Your task to perform on an android device: change the clock style Image 0: 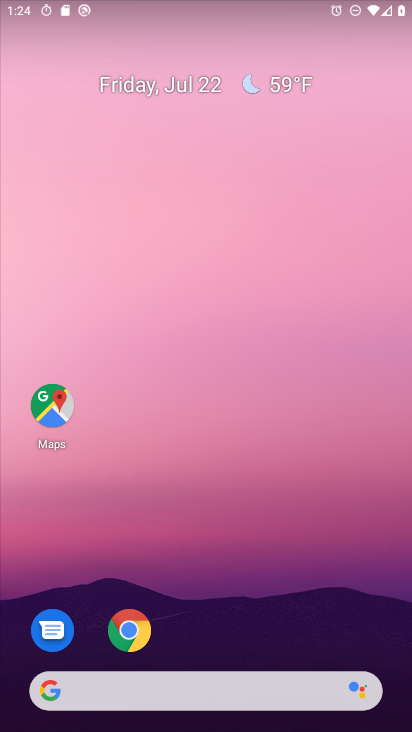
Step 0: press home button
Your task to perform on an android device: change the clock style Image 1: 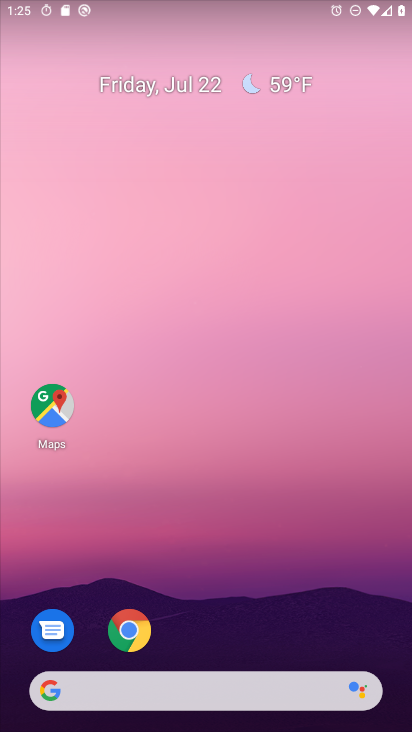
Step 1: drag from (276, 648) to (218, 281)
Your task to perform on an android device: change the clock style Image 2: 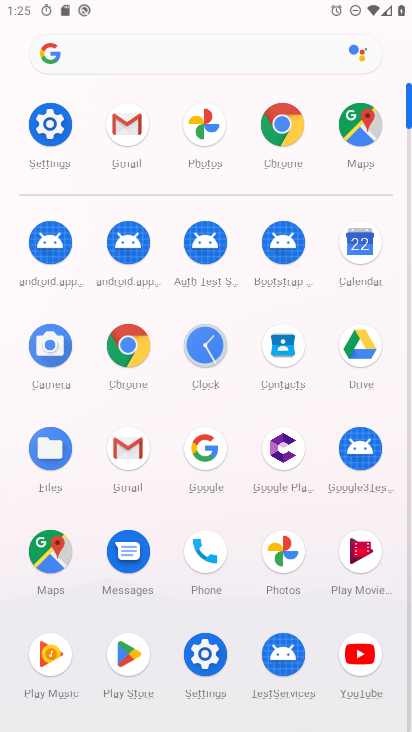
Step 2: click (199, 347)
Your task to perform on an android device: change the clock style Image 3: 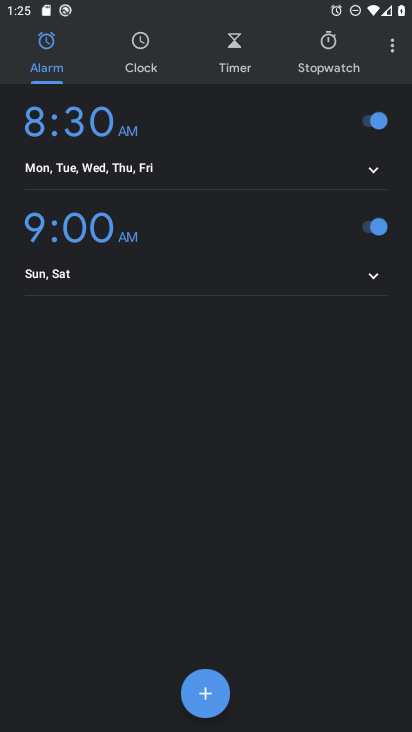
Step 3: click (398, 51)
Your task to perform on an android device: change the clock style Image 4: 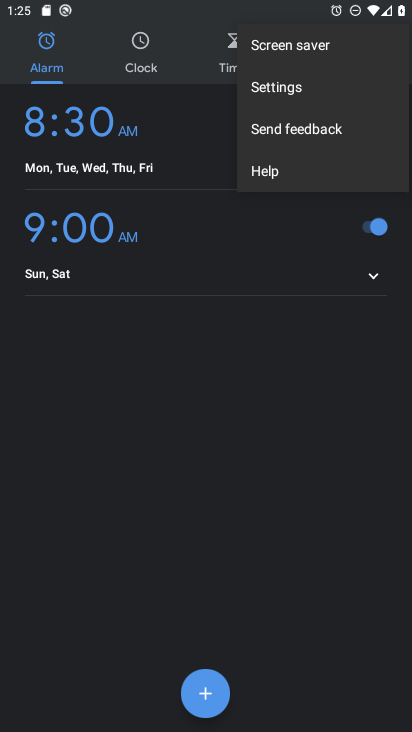
Step 4: click (281, 93)
Your task to perform on an android device: change the clock style Image 5: 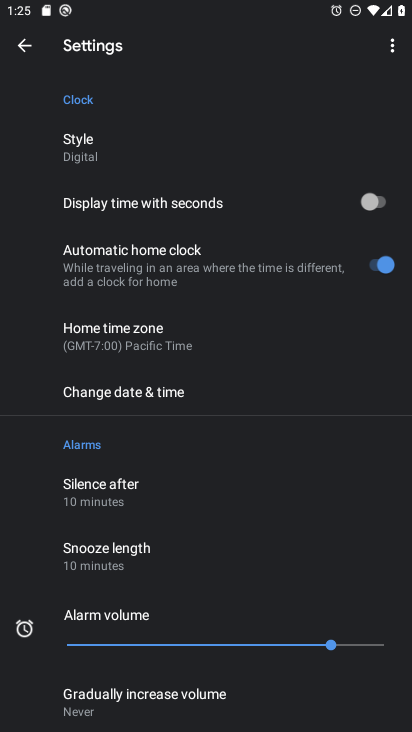
Step 5: click (78, 147)
Your task to perform on an android device: change the clock style Image 6: 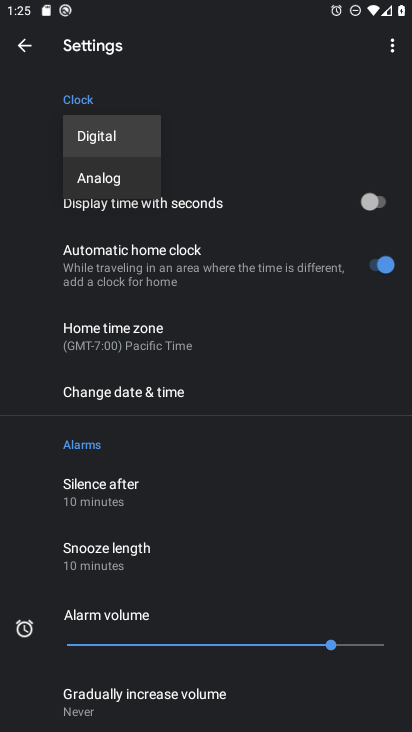
Step 6: click (99, 181)
Your task to perform on an android device: change the clock style Image 7: 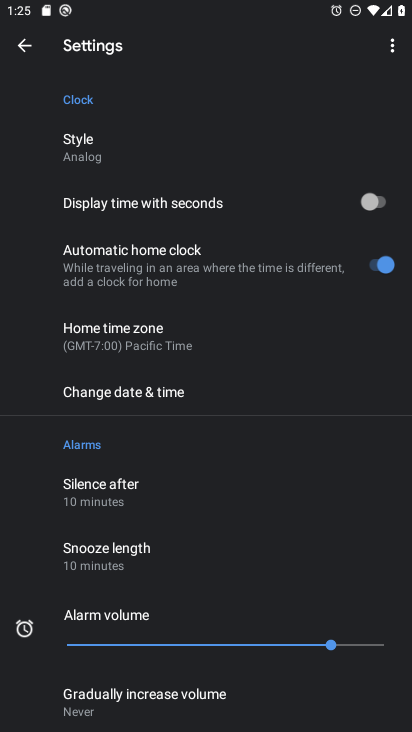
Step 7: task complete